Your task to perform on an android device: Is it going to rain tomorrow? Image 0: 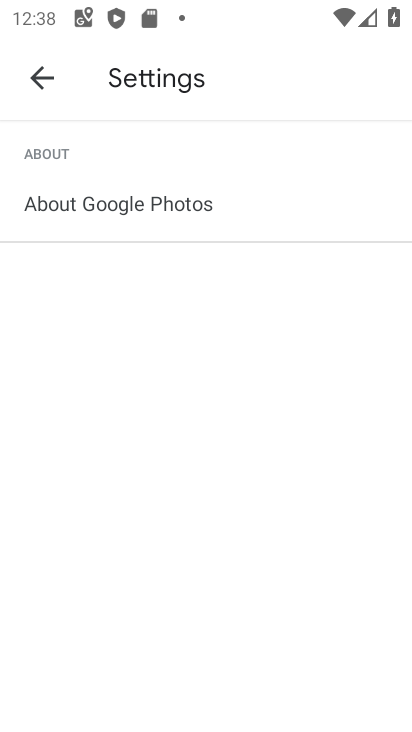
Step 0: press home button
Your task to perform on an android device: Is it going to rain tomorrow? Image 1: 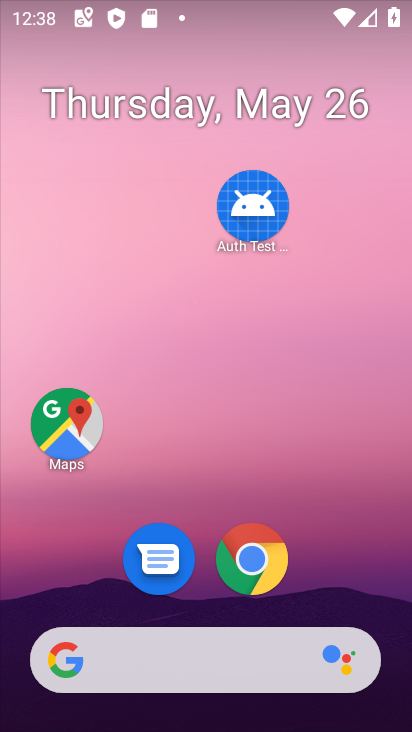
Step 1: drag from (25, 276) to (401, 309)
Your task to perform on an android device: Is it going to rain tomorrow? Image 2: 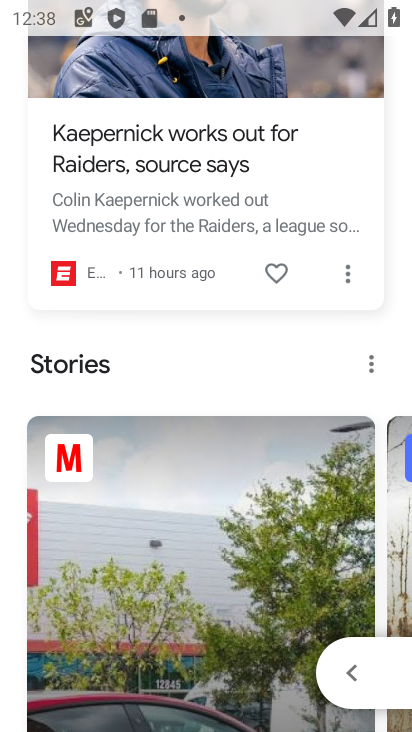
Step 2: drag from (174, 122) to (176, 540)
Your task to perform on an android device: Is it going to rain tomorrow? Image 3: 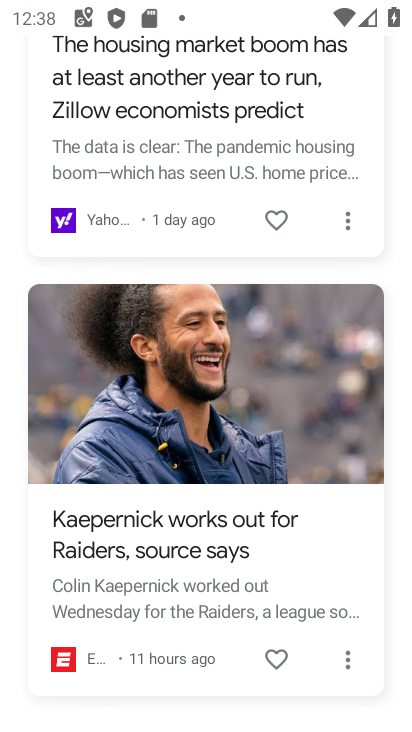
Step 3: drag from (194, 100) to (151, 576)
Your task to perform on an android device: Is it going to rain tomorrow? Image 4: 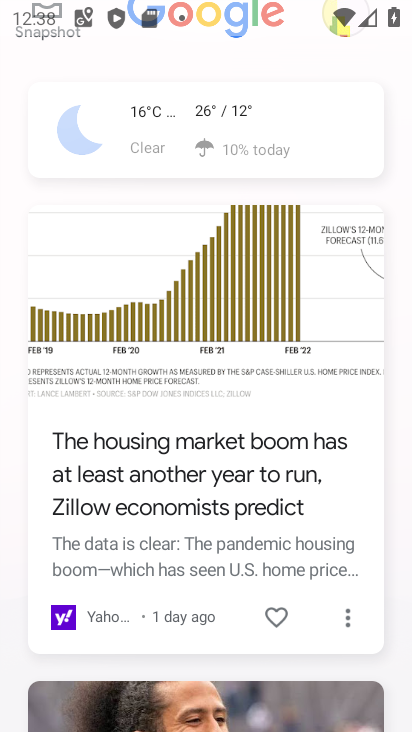
Step 4: drag from (157, 145) to (164, 348)
Your task to perform on an android device: Is it going to rain tomorrow? Image 5: 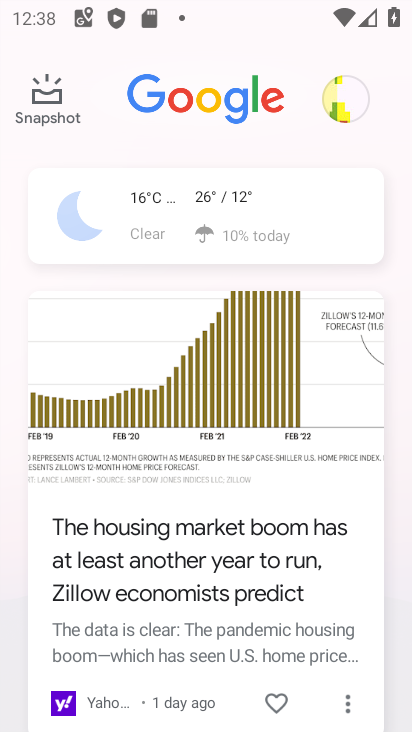
Step 5: click (210, 194)
Your task to perform on an android device: Is it going to rain tomorrow? Image 6: 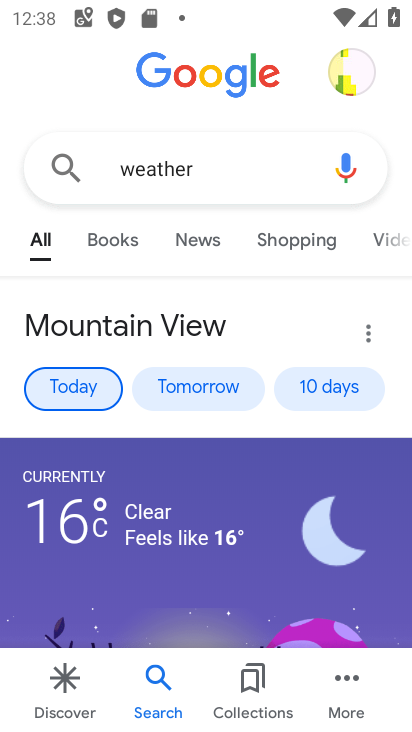
Step 6: click (213, 378)
Your task to perform on an android device: Is it going to rain tomorrow? Image 7: 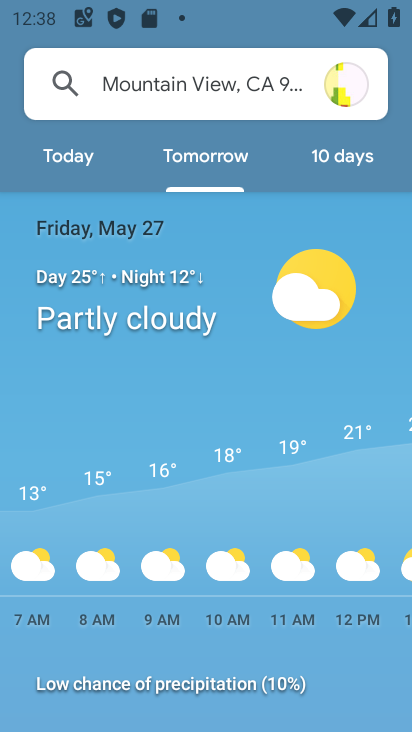
Step 7: task complete